Your task to perform on an android device: Go to internet settings Image 0: 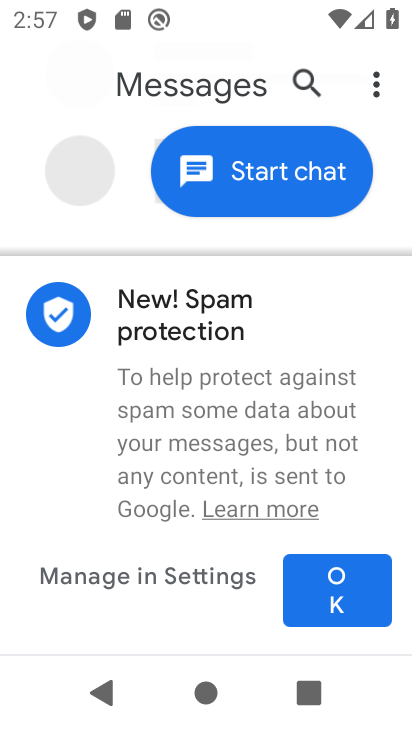
Step 0: press home button
Your task to perform on an android device: Go to internet settings Image 1: 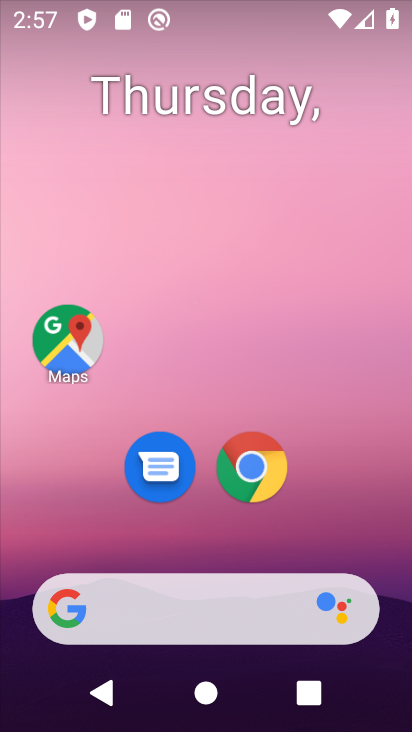
Step 1: drag from (200, 595) to (312, 12)
Your task to perform on an android device: Go to internet settings Image 2: 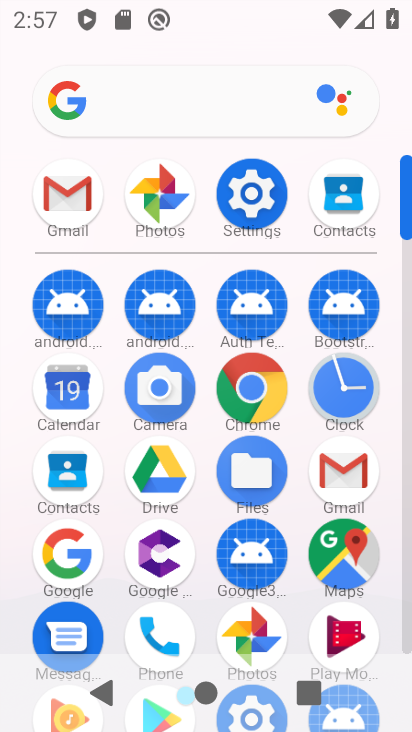
Step 2: click (266, 183)
Your task to perform on an android device: Go to internet settings Image 3: 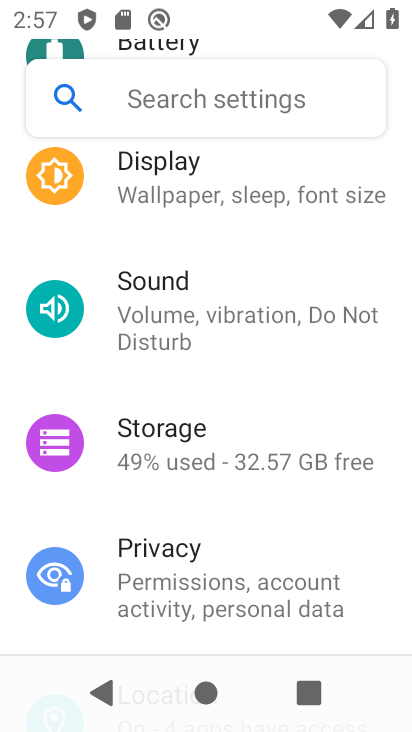
Step 3: drag from (240, 171) to (258, 661)
Your task to perform on an android device: Go to internet settings Image 4: 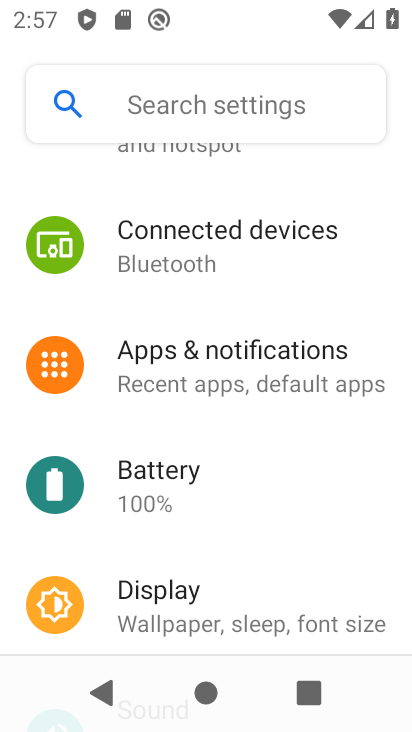
Step 4: drag from (225, 175) to (198, 492)
Your task to perform on an android device: Go to internet settings Image 5: 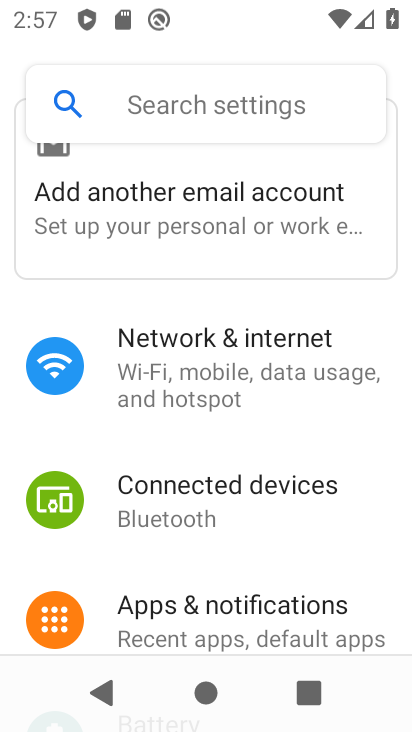
Step 5: click (177, 378)
Your task to perform on an android device: Go to internet settings Image 6: 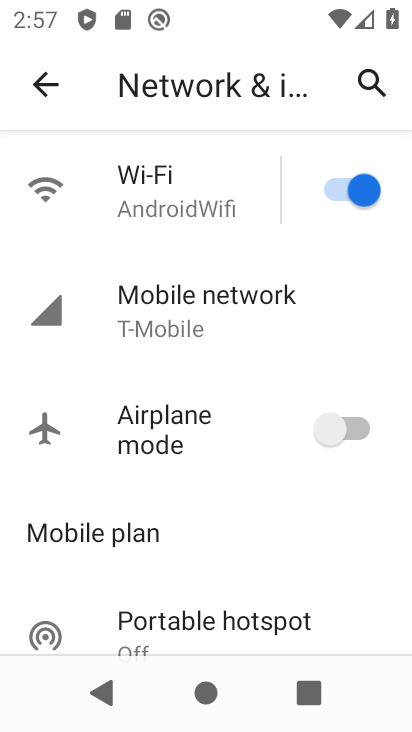
Step 6: task complete